Your task to perform on an android device: turn off smart reply in the gmail app Image 0: 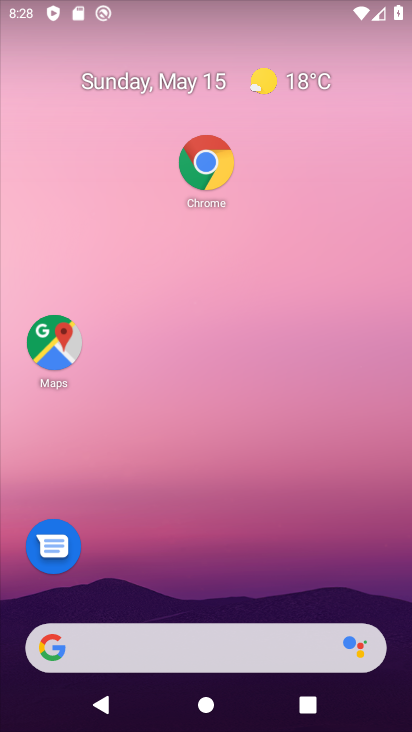
Step 0: drag from (264, 612) to (302, 233)
Your task to perform on an android device: turn off smart reply in the gmail app Image 1: 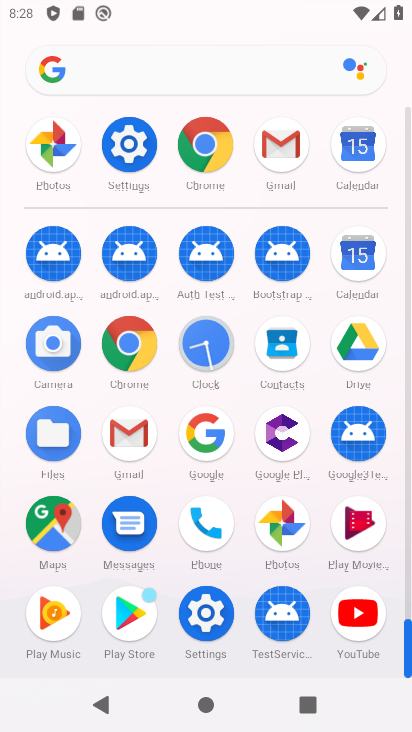
Step 1: click (124, 428)
Your task to perform on an android device: turn off smart reply in the gmail app Image 2: 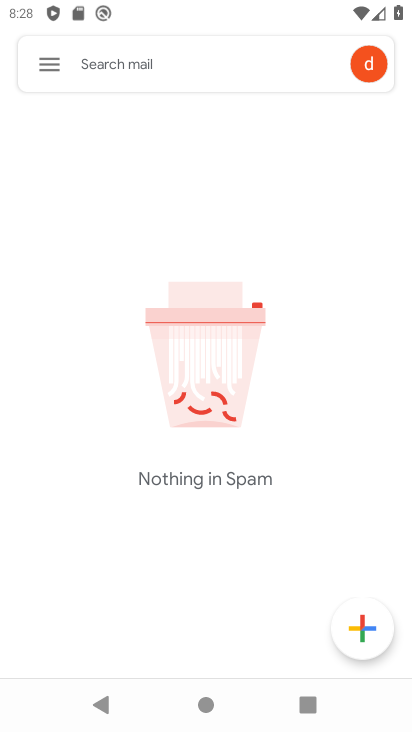
Step 2: click (41, 67)
Your task to perform on an android device: turn off smart reply in the gmail app Image 3: 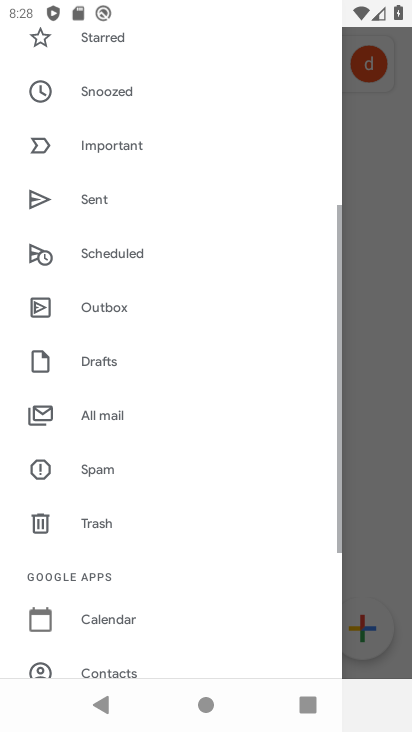
Step 3: drag from (114, 629) to (201, 350)
Your task to perform on an android device: turn off smart reply in the gmail app Image 4: 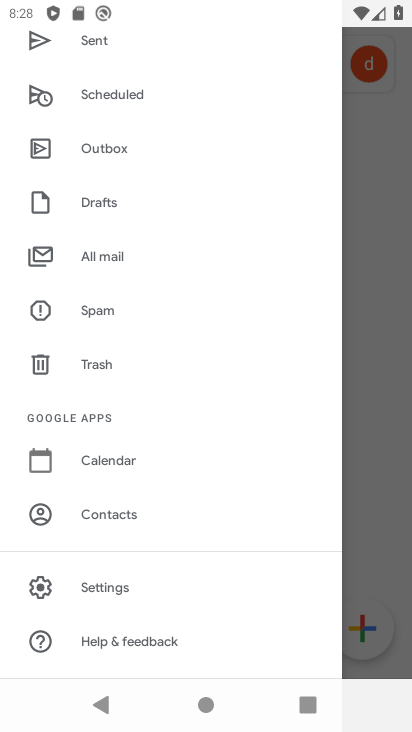
Step 4: click (118, 580)
Your task to perform on an android device: turn off smart reply in the gmail app Image 5: 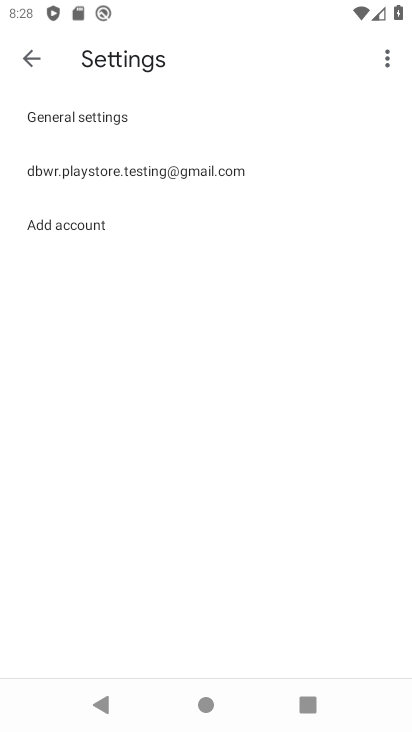
Step 5: click (137, 166)
Your task to perform on an android device: turn off smart reply in the gmail app Image 6: 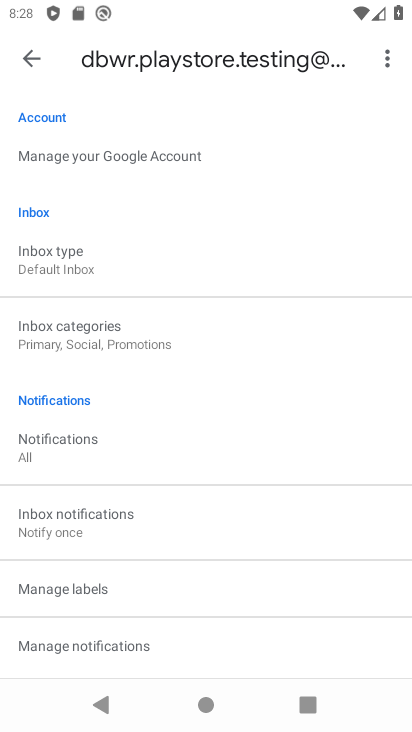
Step 6: drag from (207, 467) to (268, 138)
Your task to perform on an android device: turn off smart reply in the gmail app Image 7: 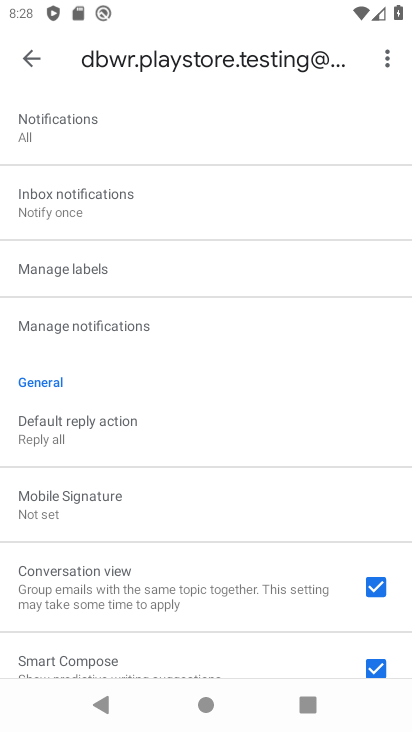
Step 7: drag from (159, 534) to (275, 300)
Your task to perform on an android device: turn off smart reply in the gmail app Image 8: 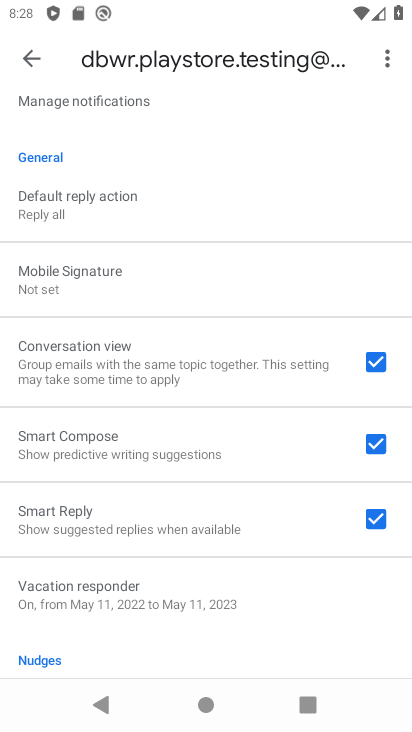
Step 8: click (369, 518)
Your task to perform on an android device: turn off smart reply in the gmail app Image 9: 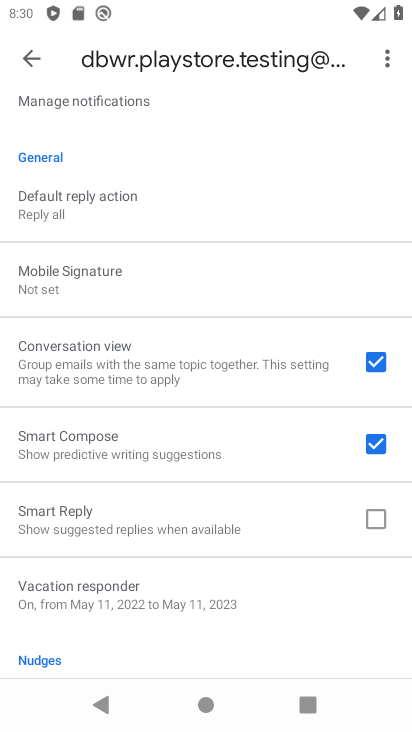
Step 9: task complete